Your task to perform on an android device: check google app version Image 0: 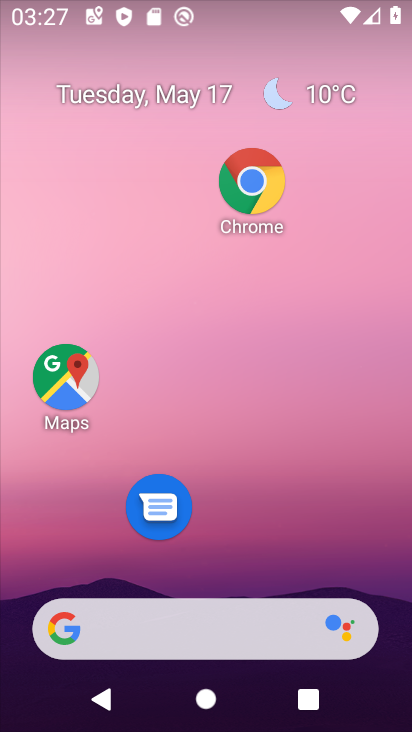
Step 0: click (181, 616)
Your task to perform on an android device: check google app version Image 1: 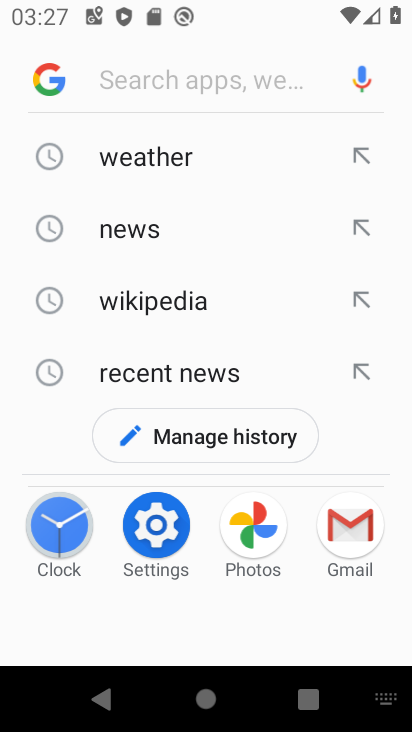
Step 1: click (54, 76)
Your task to perform on an android device: check google app version Image 2: 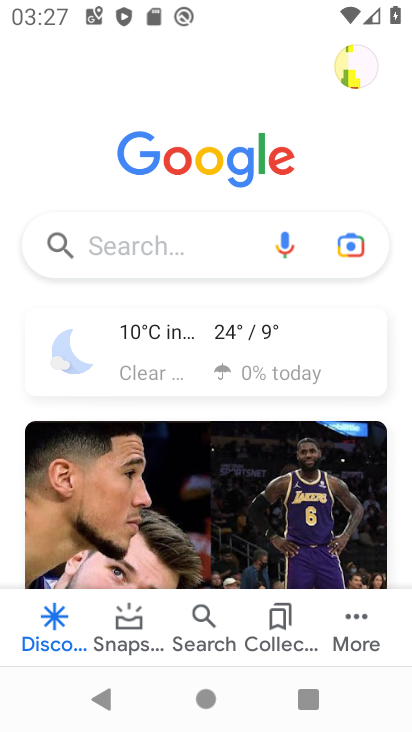
Step 2: click (367, 633)
Your task to perform on an android device: check google app version Image 3: 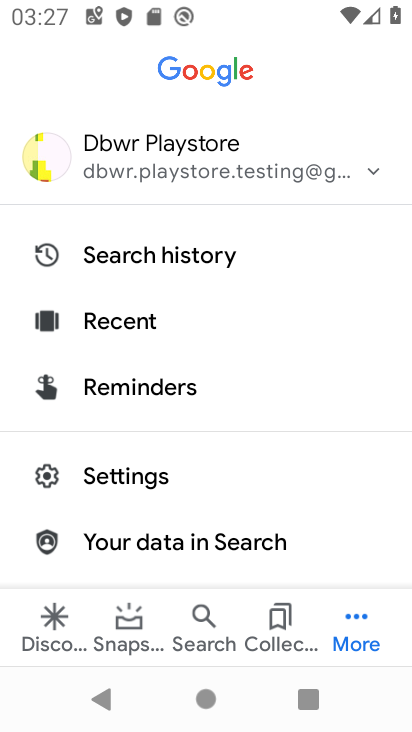
Step 3: click (163, 471)
Your task to perform on an android device: check google app version Image 4: 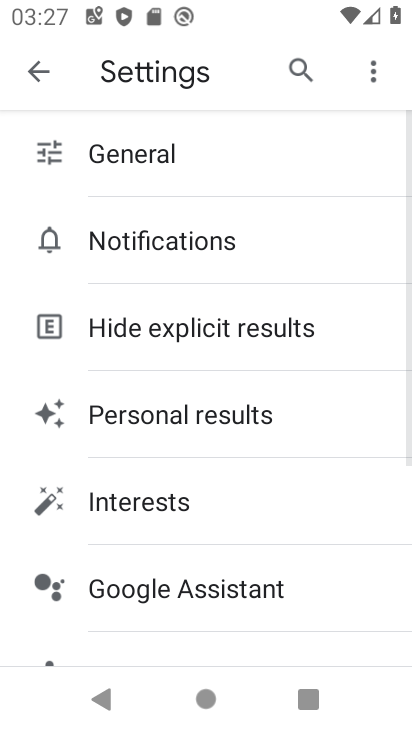
Step 4: drag from (174, 602) to (190, 284)
Your task to perform on an android device: check google app version Image 5: 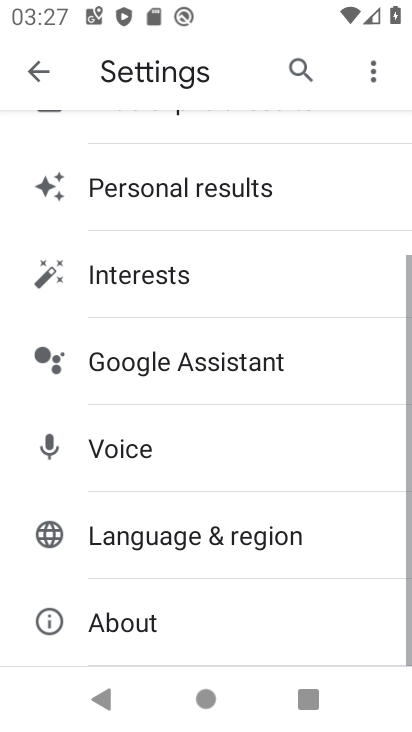
Step 5: click (124, 618)
Your task to perform on an android device: check google app version Image 6: 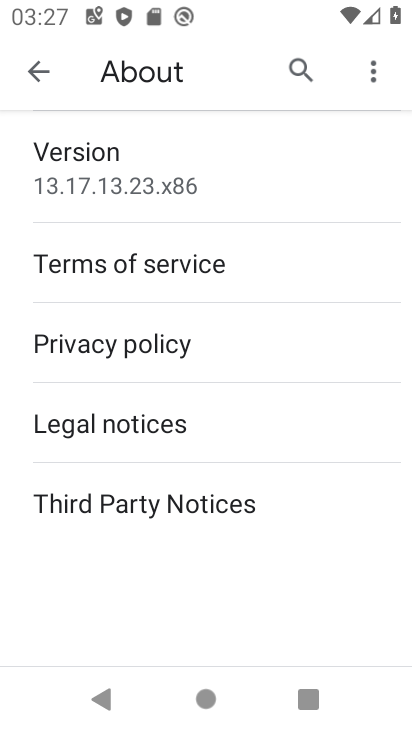
Step 6: task complete